Your task to perform on an android device: Open Wikipedia Image 0: 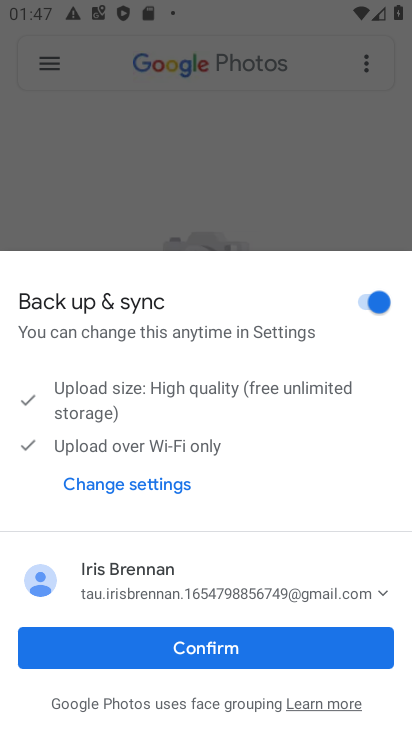
Step 0: press home button
Your task to perform on an android device: Open Wikipedia Image 1: 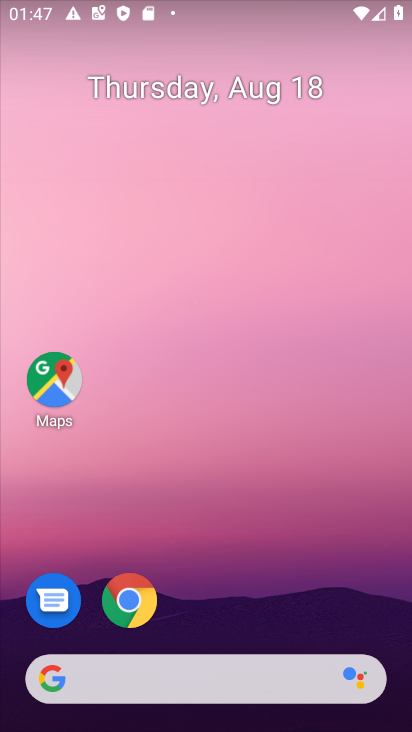
Step 1: drag from (274, 619) to (198, 129)
Your task to perform on an android device: Open Wikipedia Image 2: 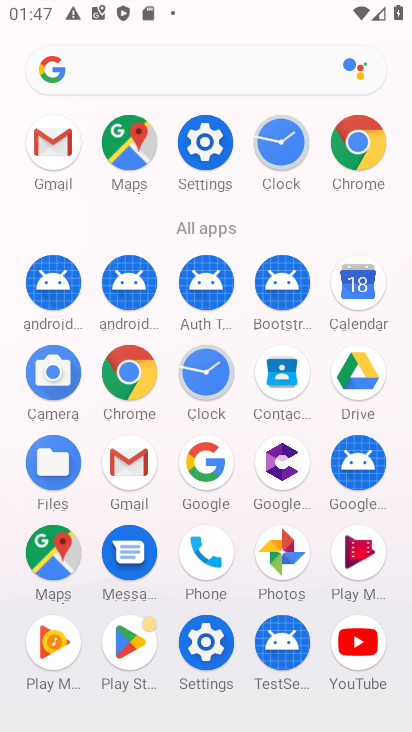
Step 2: click (216, 466)
Your task to perform on an android device: Open Wikipedia Image 3: 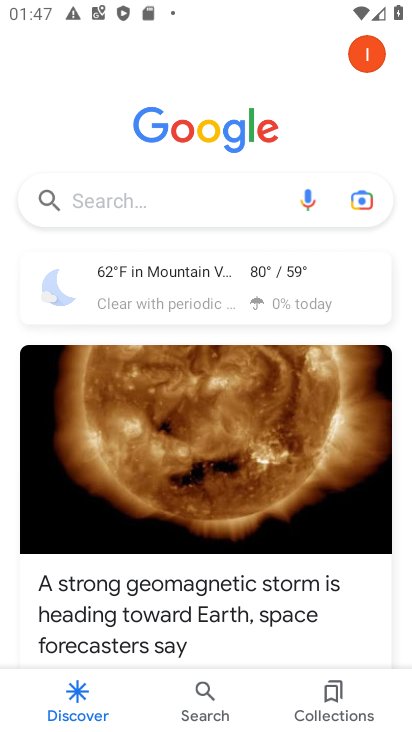
Step 3: type " Wikipedia"
Your task to perform on an android device: Open Wikipedia Image 4: 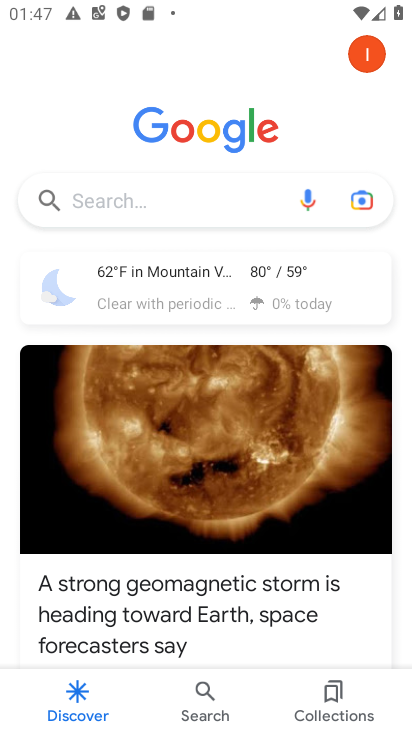
Step 4: click (98, 202)
Your task to perform on an android device: Open Wikipedia Image 5: 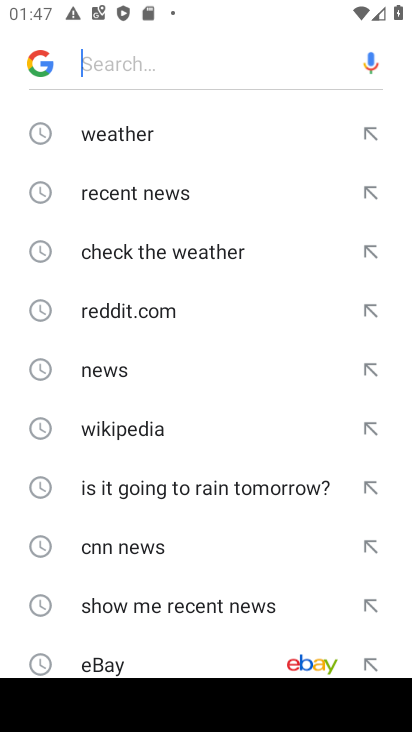
Step 5: click (129, 426)
Your task to perform on an android device: Open Wikipedia Image 6: 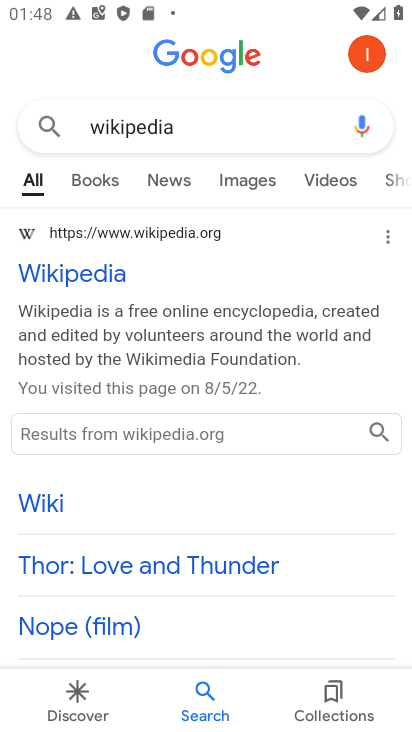
Step 6: click (87, 274)
Your task to perform on an android device: Open Wikipedia Image 7: 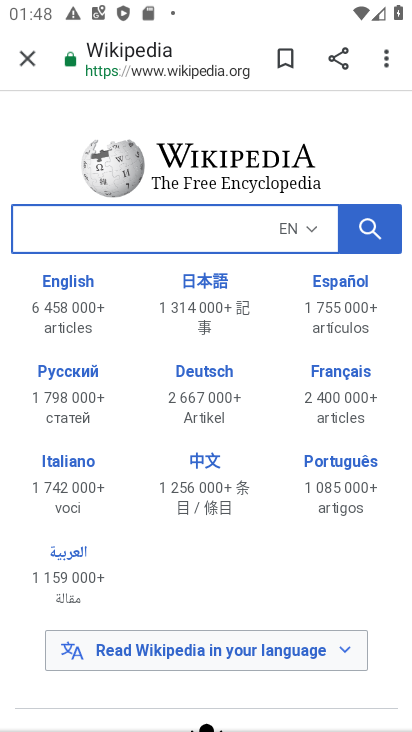
Step 7: task complete